Your task to perform on an android device: Show me the alarms in the clock app Image 0: 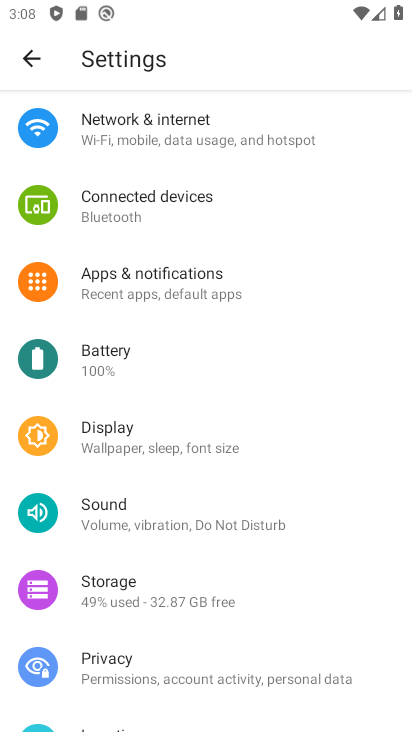
Step 0: press home button
Your task to perform on an android device: Show me the alarms in the clock app Image 1: 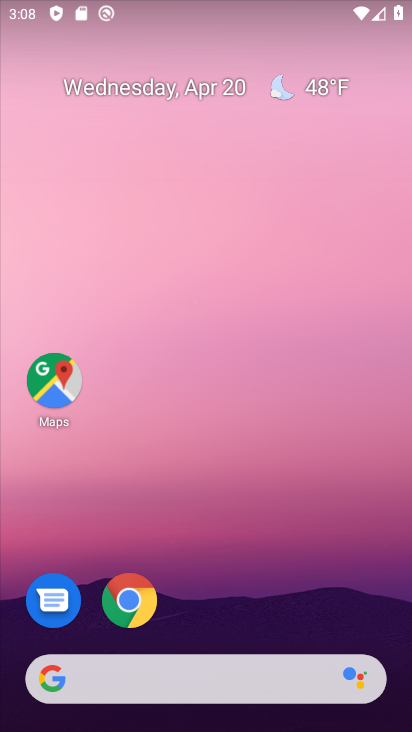
Step 1: drag from (329, 537) to (355, 95)
Your task to perform on an android device: Show me the alarms in the clock app Image 2: 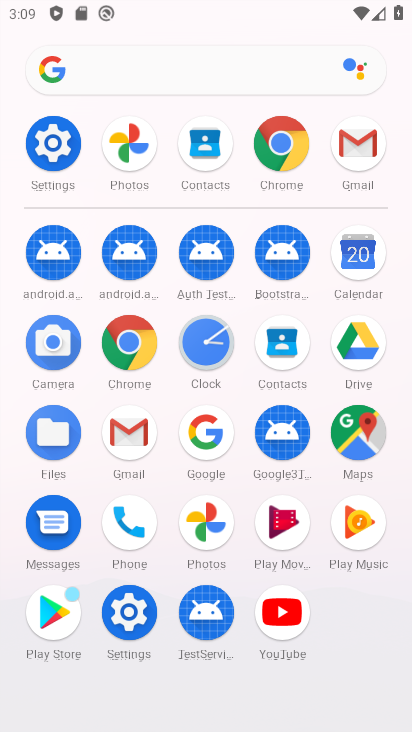
Step 2: click (200, 338)
Your task to perform on an android device: Show me the alarms in the clock app Image 3: 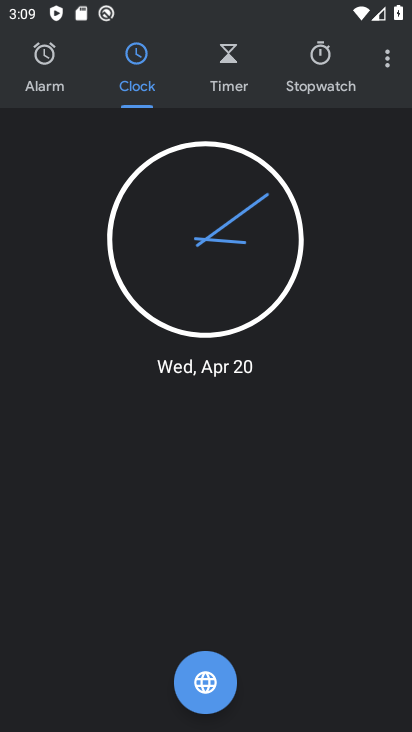
Step 3: click (66, 80)
Your task to perform on an android device: Show me the alarms in the clock app Image 4: 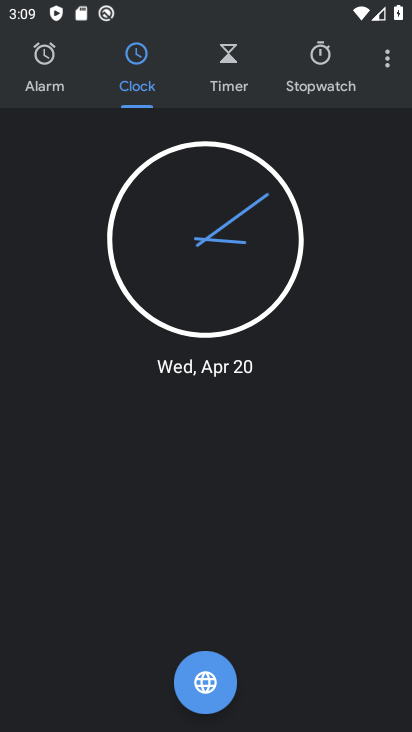
Step 4: click (43, 88)
Your task to perform on an android device: Show me the alarms in the clock app Image 5: 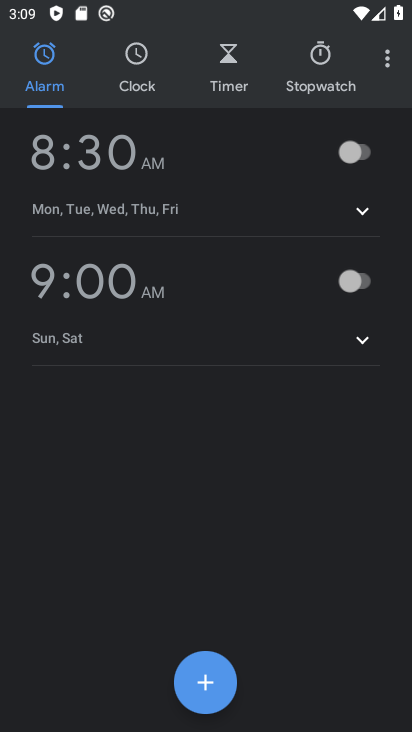
Step 5: click (220, 205)
Your task to perform on an android device: Show me the alarms in the clock app Image 6: 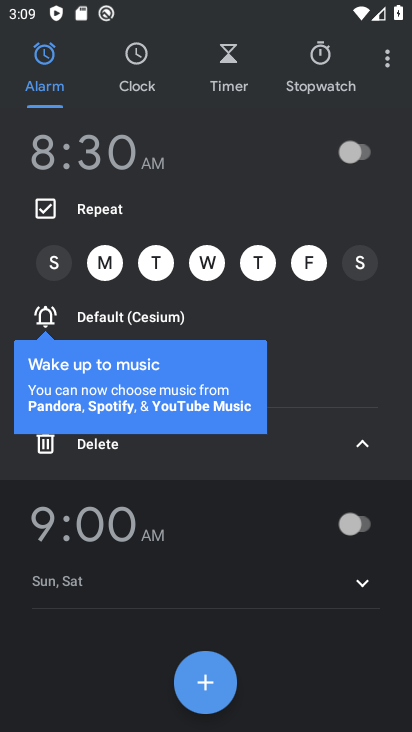
Step 6: task complete